Your task to perform on an android device: Look up the book "The Girl on the Train". Image 0: 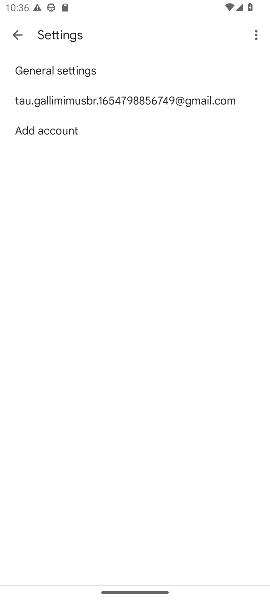
Step 0: press home button
Your task to perform on an android device: Look up the book "The Girl on the Train". Image 1: 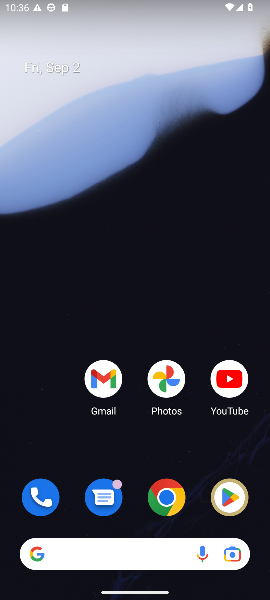
Step 1: click (172, 497)
Your task to perform on an android device: Look up the book "The Girl on the Train". Image 2: 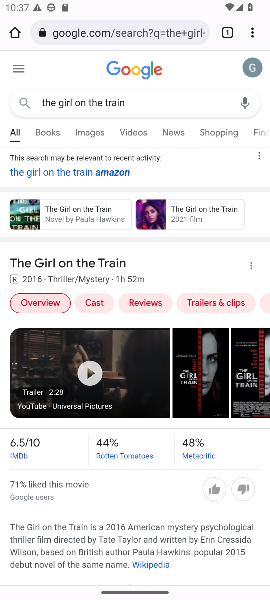
Step 2: task complete